Your task to perform on an android device: Go to Google maps Image 0: 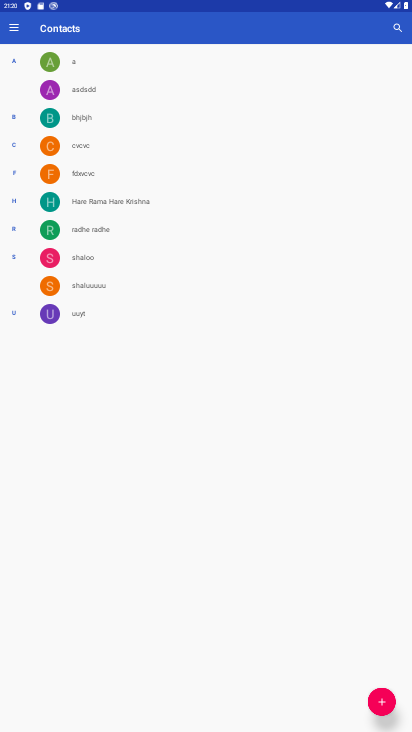
Step 0: press home button
Your task to perform on an android device: Go to Google maps Image 1: 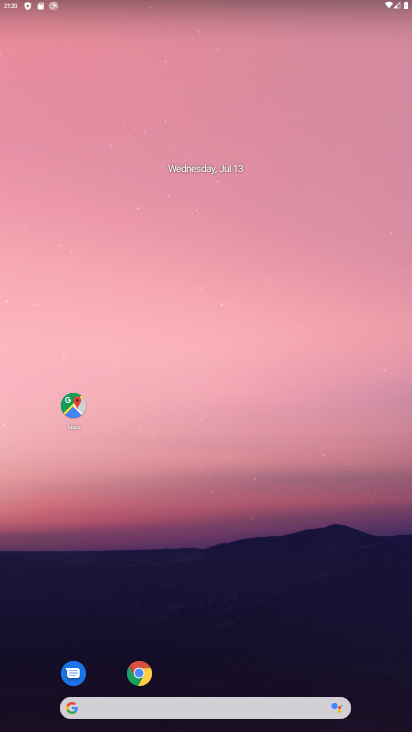
Step 1: click (69, 422)
Your task to perform on an android device: Go to Google maps Image 2: 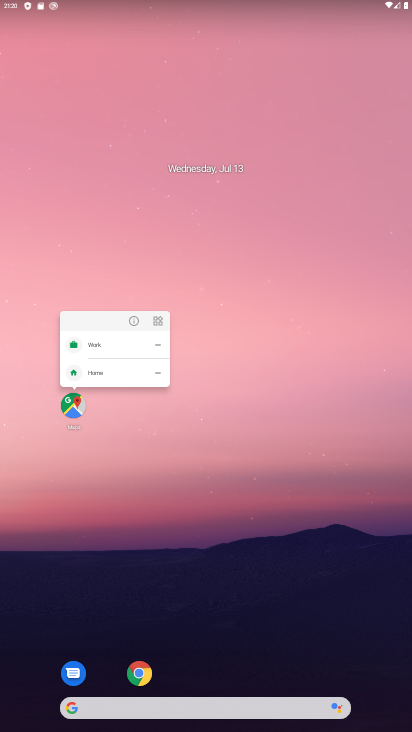
Step 2: click (69, 422)
Your task to perform on an android device: Go to Google maps Image 3: 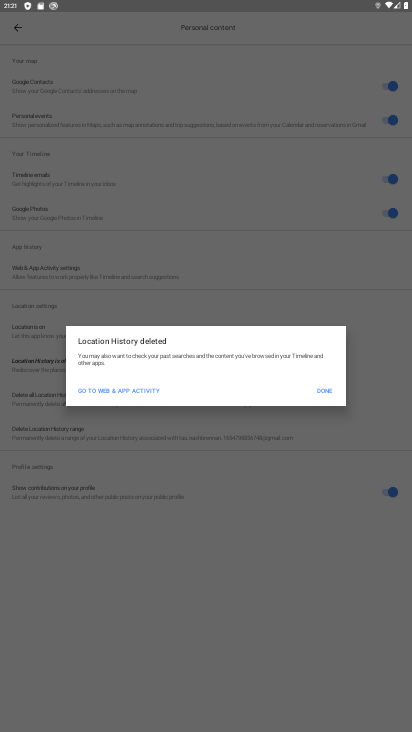
Step 3: press home button
Your task to perform on an android device: Go to Google maps Image 4: 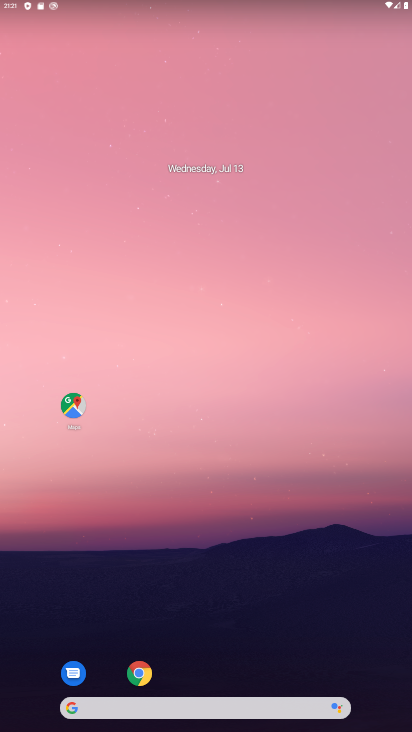
Step 4: click (68, 412)
Your task to perform on an android device: Go to Google maps Image 5: 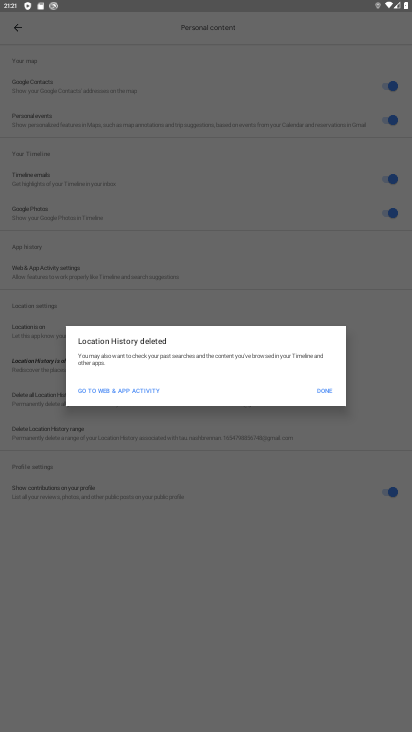
Step 5: click (313, 384)
Your task to perform on an android device: Go to Google maps Image 6: 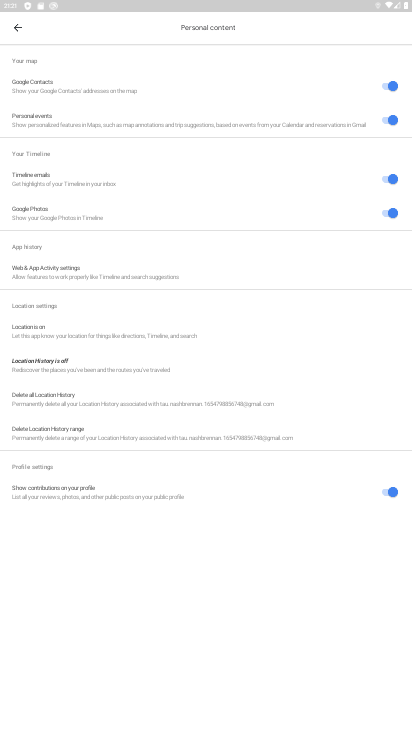
Step 6: click (16, 25)
Your task to perform on an android device: Go to Google maps Image 7: 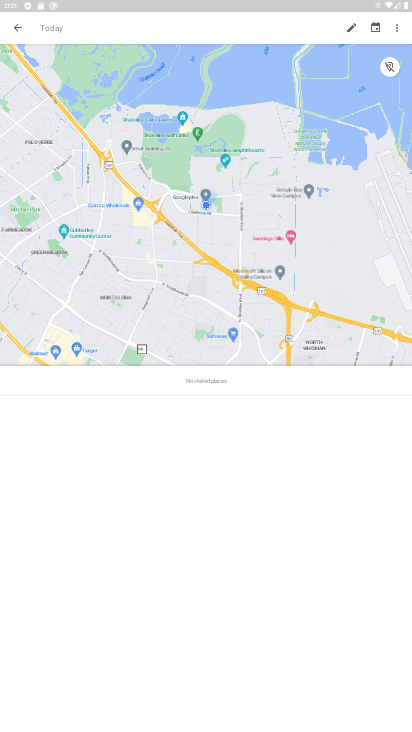
Step 7: click (21, 29)
Your task to perform on an android device: Go to Google maps Image 8: 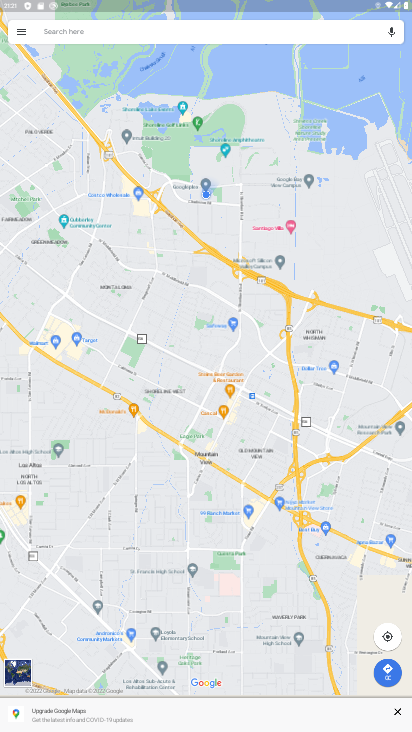
Step 8: task complete